Your task to perform on an android device: delete the emails in spam in the gmail app Image 0: 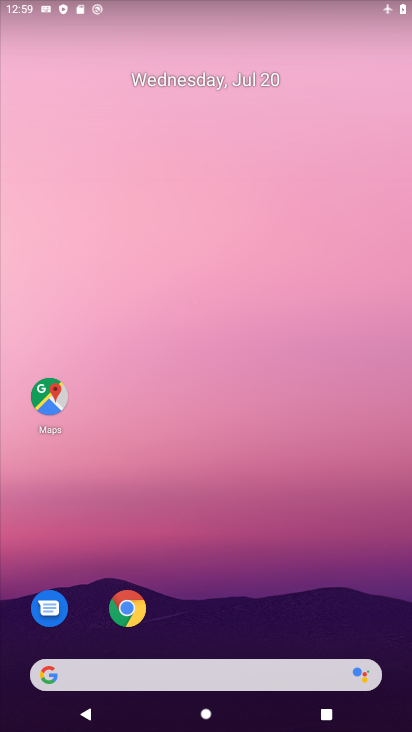
Step 0: drag from (243, 658) to (185, 193)
Your task to perform on an android device: delete the emails in spam in the gmail app Image 1: 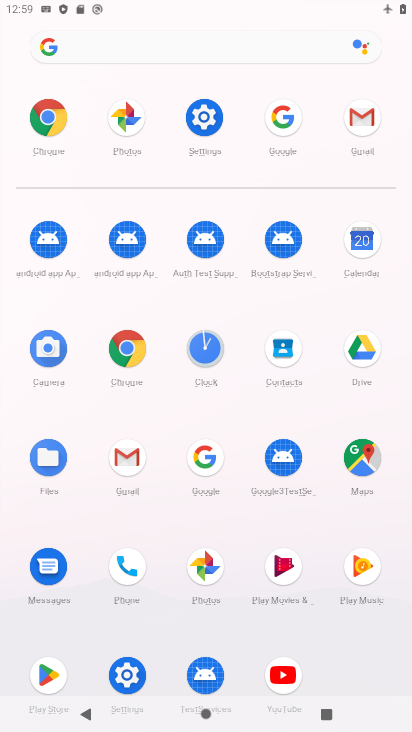
Step 1: click (364, 121)
Your task to perform on an android device: delete the emails in spam in the gmail app Image 2: 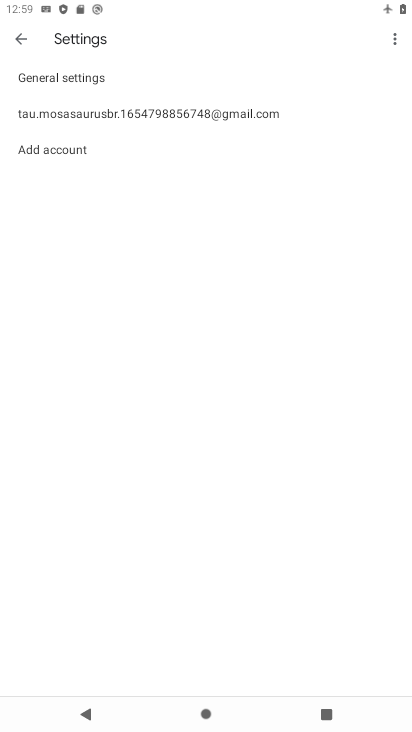
Step 2: click (14, 42)
Your task to perform on an android device: delete the emails in spam in the gmail app Image 3: 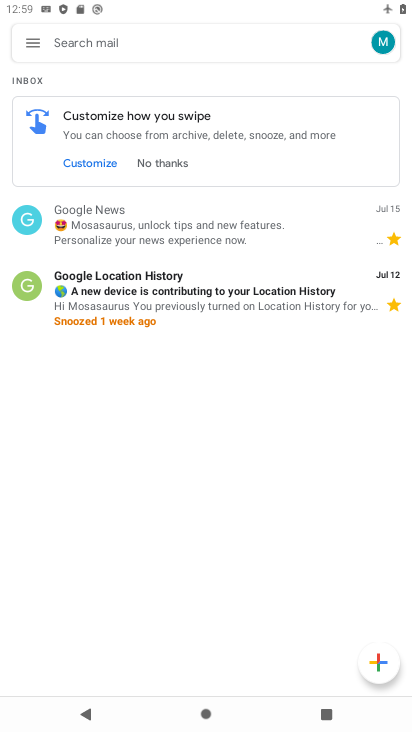
Step 3: click (39, 42)
Your task to perform on an android device: delete the emails in spam in the gmail app Image 4: 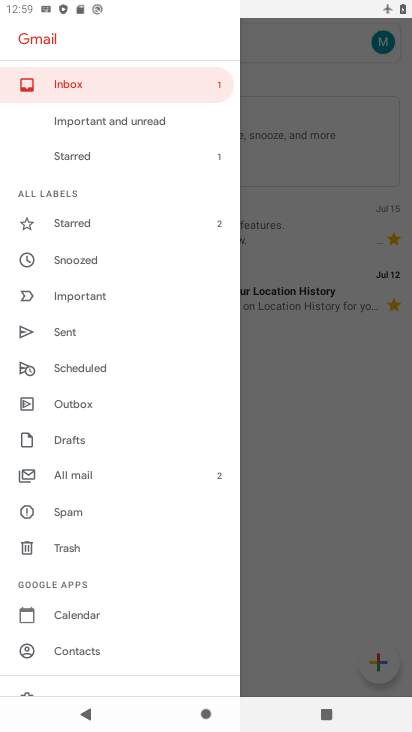
Step 4: click (69, 518)
Your task to perform on an android device: delete the emails in spam in the gmail app Image 5: 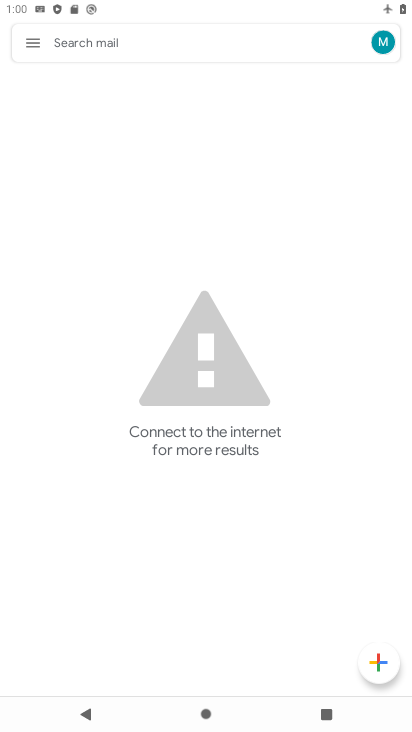
Step 5: task complete